Your task to perform on an android device: Do I have any events today? Image 0: 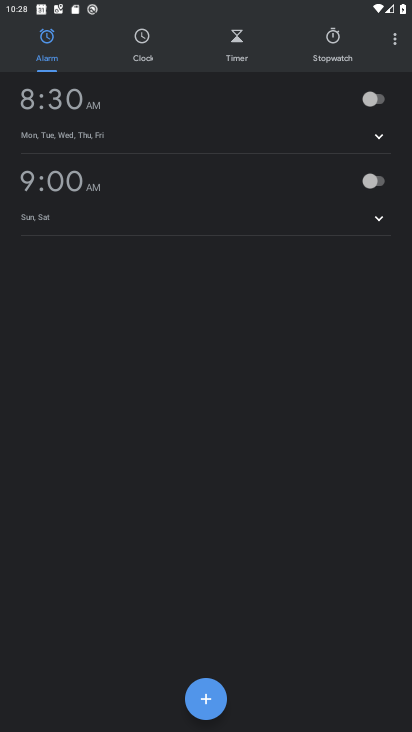
Step 0: press home button
Your task to perform on an android device: Do I have any events today? Image 1: 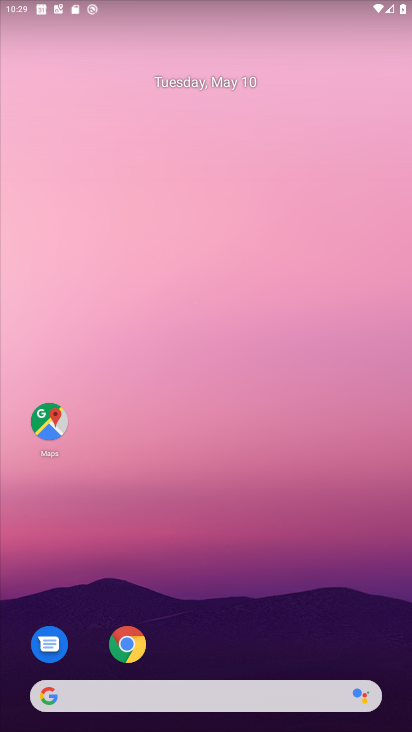
Step 1: drag from (294, 581) to (358, 90)
Your task to perform on an android device: Do I have any events today? Image 2: 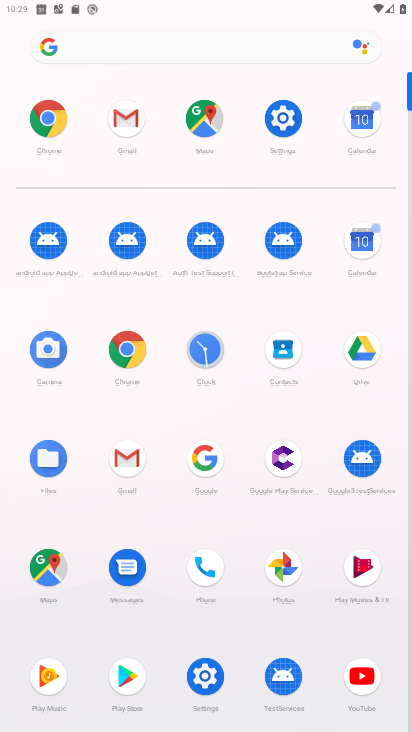
Step 2: click (378, 236)
Your task to perform on an android device: Do I have any events today? Image 3: 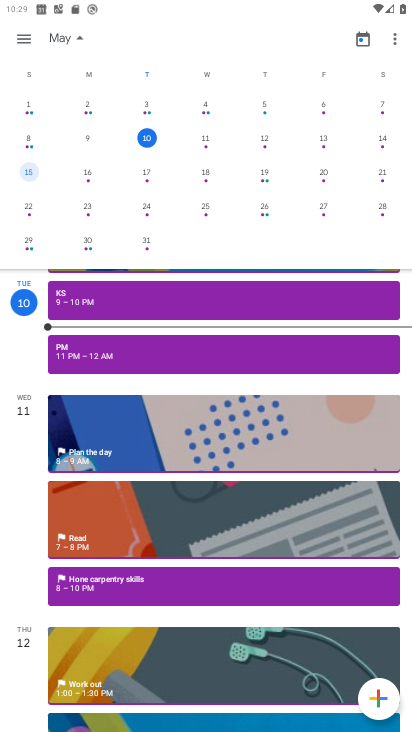
Step 3: task complete